Your task to perform on an android device: Show me the alarms in the clock app Image 0: 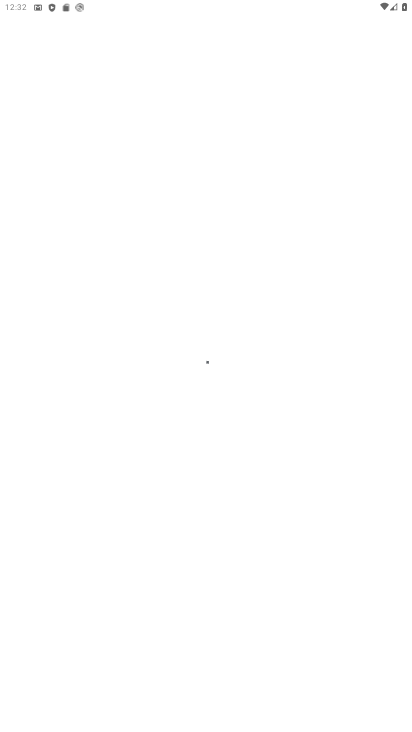
Step 0: press home button
Your task to perform on an android device: Show me the alarms in the clock app Image 1: 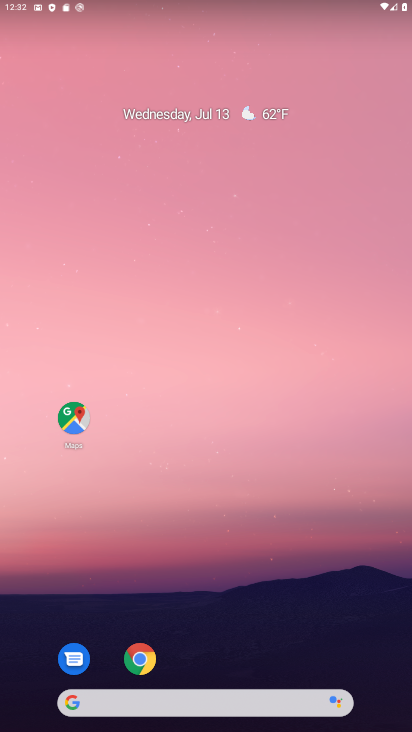
Step 1: drag from (182, 689) to (213, 206)
Your task to perform on an android device: Show me the alarms in the clock app Image 2: 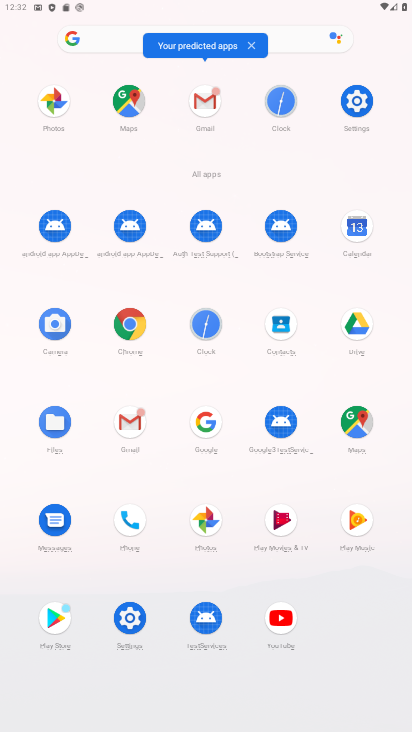
Step 2: click (206, 325)
Your task to perform on an android device: Show me the alarms in the clock app Image 3: 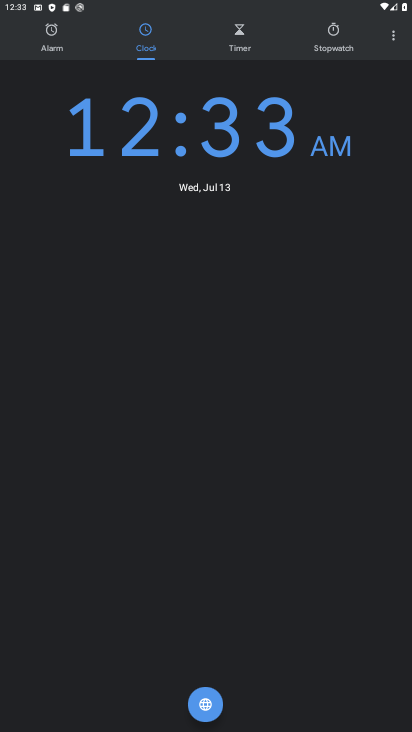
Step 3: click (72, 44)
Your task to perform on an android device: Show me the alarms in the clock app Image 4: 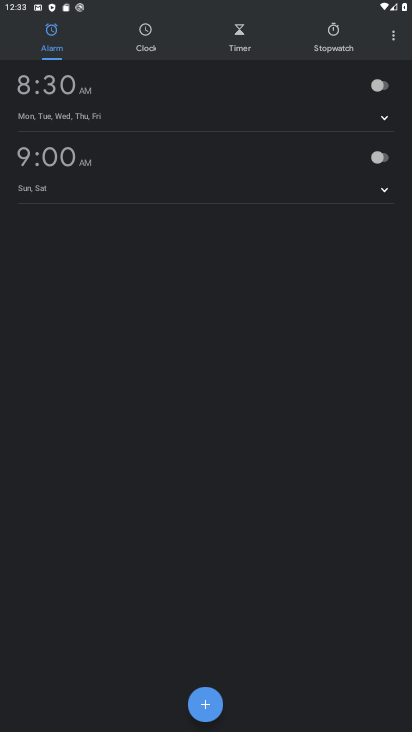
Step 4: task complete